Your task to perform on an android device: Is it going to rain this weekend? Image 0: 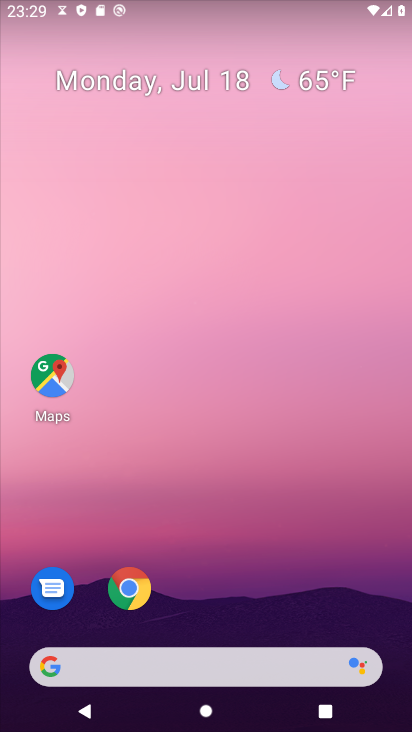
Step 0: click (55, 663)
Your task to perform on an android device: Is it going to rain this weekend? Image 1: 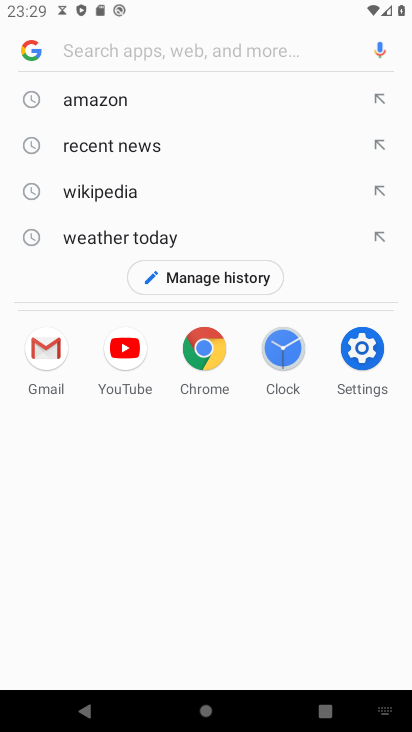
Step 1: type "Is it going to rain this weekend"
Your task to perform on an android device: Is it going to rain this weekend? Image 2: 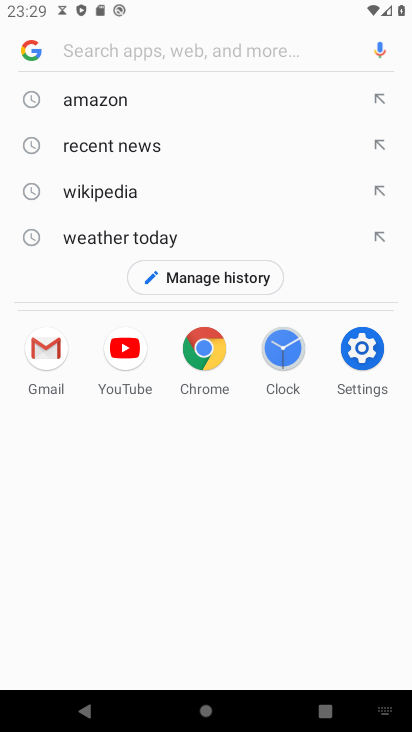
Step 2: click (116, 42)
Your task to perform on an android device: Is it going to rain this weekend? Image 3: 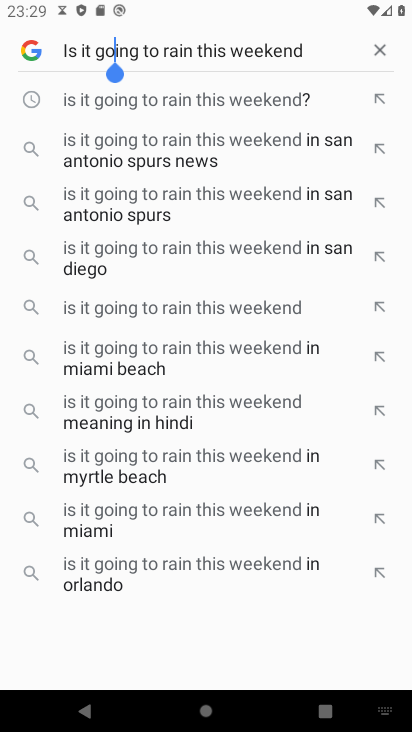
Step 3: press enter
Your task to perform on an android device: Is it going to rain this weekend? Image 4: 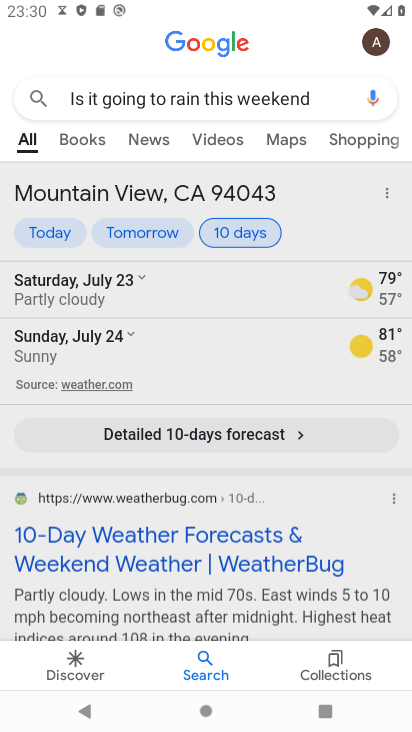
Step 4: task complete